Your task to perform on an android device: Is it going to rain tomorrow? Image 0: 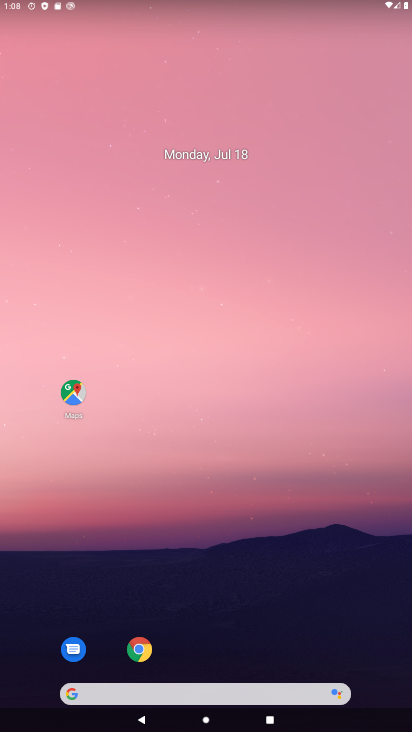
Step 0: drag from (220, 680) to (122, 64)
Your task to perform on an android device: Is it going to rain tomorrow? Image 1: 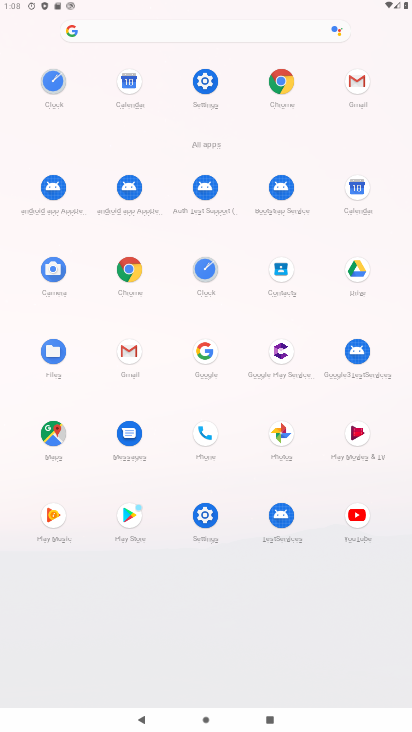
Step 1: click (197, 358)
Your task to perform on an android device: Is it going to rain tomorrow? Image 2: 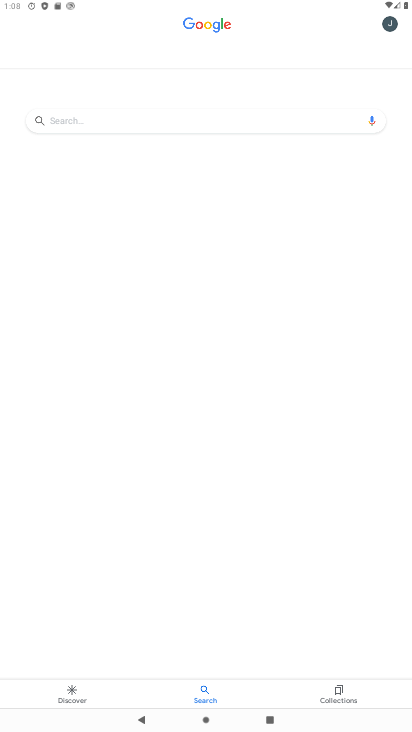
Step 2: click (115, 126)
Your task to perform on an android device: Is it going to rain tomorrow? Image 3: 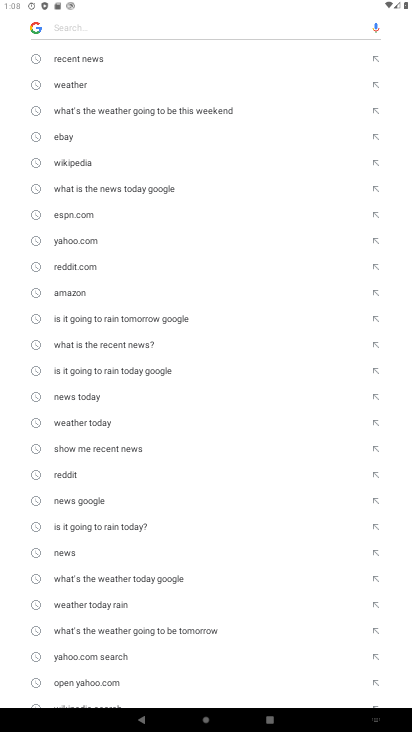
Step 3: click (69, 85)
Your task to perform on an android device: Is it going to rain tomorrow? Image 4: 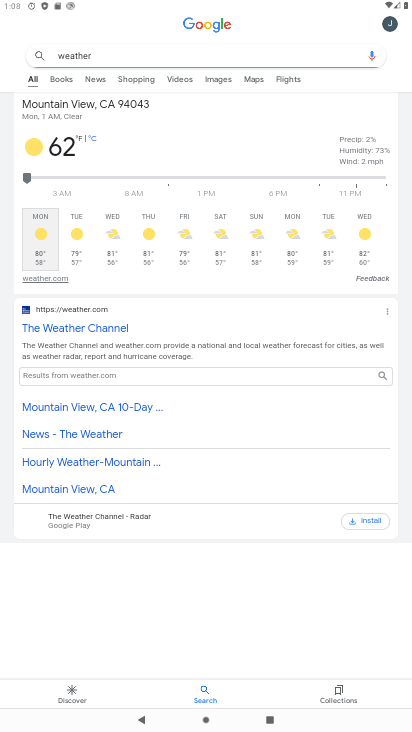
Step 4: click (76, 241)
Your task to perform on an android device: Is it going to rain tomorrow? Image 5: 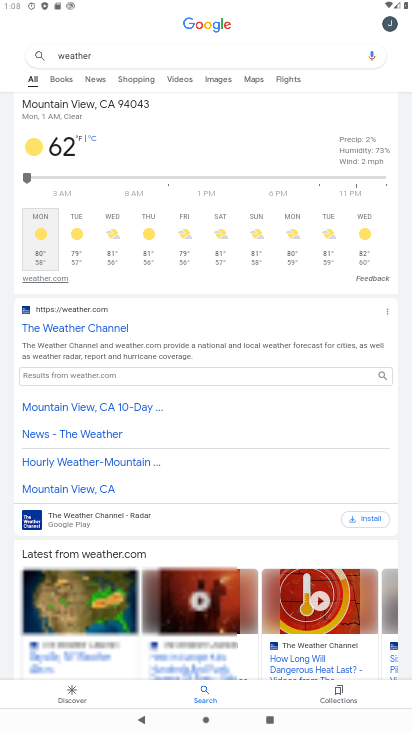
Step 5: click (76, 241)
Your task to perform on an android device: Is it going to rain tomorrow? Image 6: 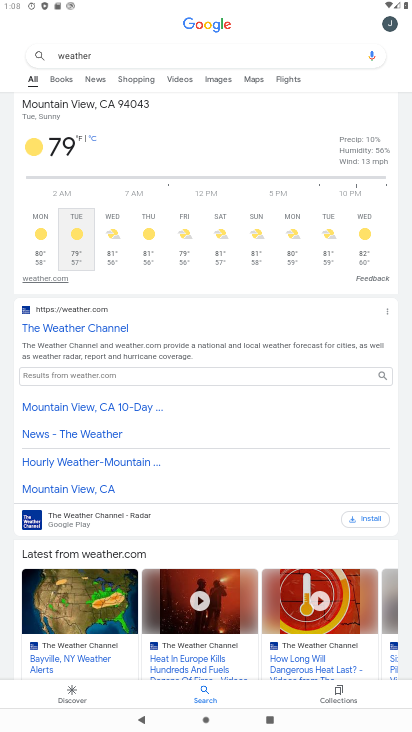
Step 6: click (77, 242)
Your task to perform on an android device: Is it going to rain tomorrow? Image 7: 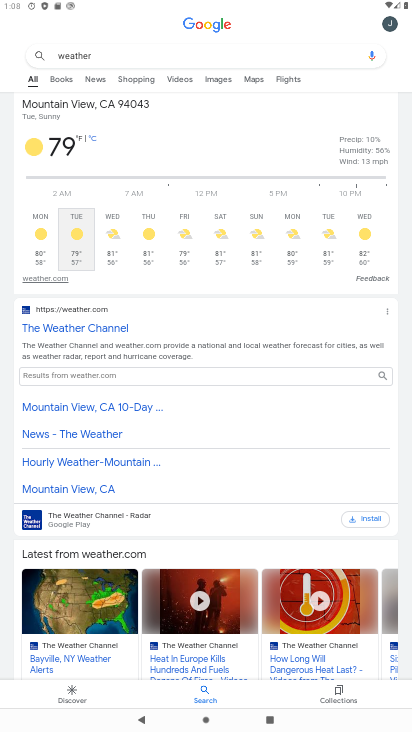
Step 7: task complete